Your task to perform on an android device: Open Android settings Image 0: 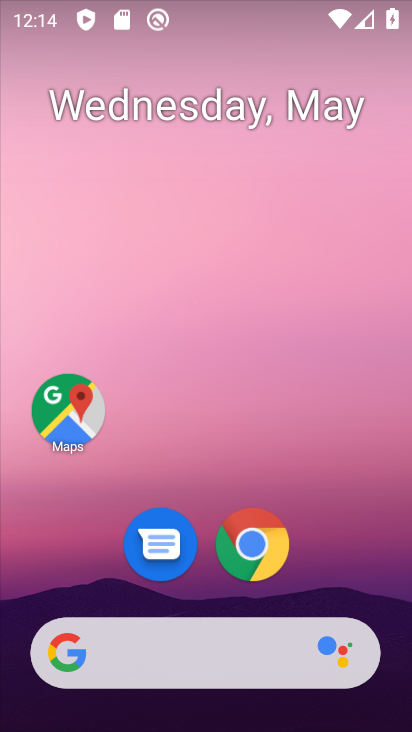
Step 0: drag from (321, 478) to (325, 129)
Your task to perform on an android device: Open Android settings Image 1: 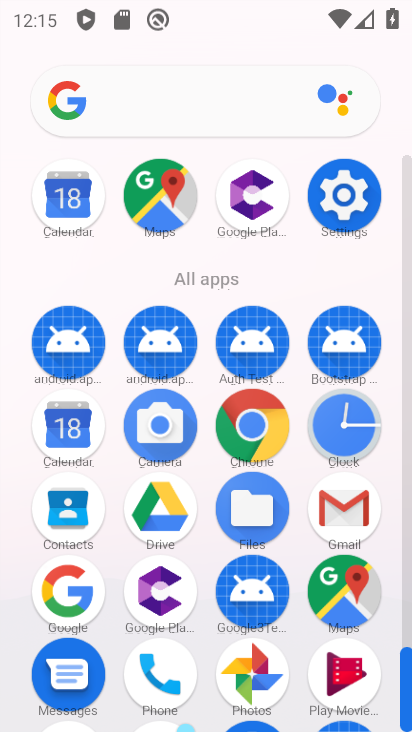
Step 1: click (333, 175)
Your task to perform on an android device: Open Android settings Image 2: 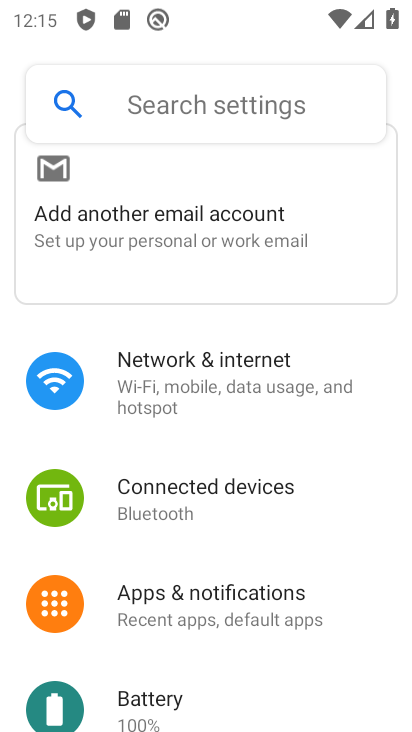
Step 2: task complete